Your task to perform on an android device: Open calendar and show me the first week of next month Image 0: 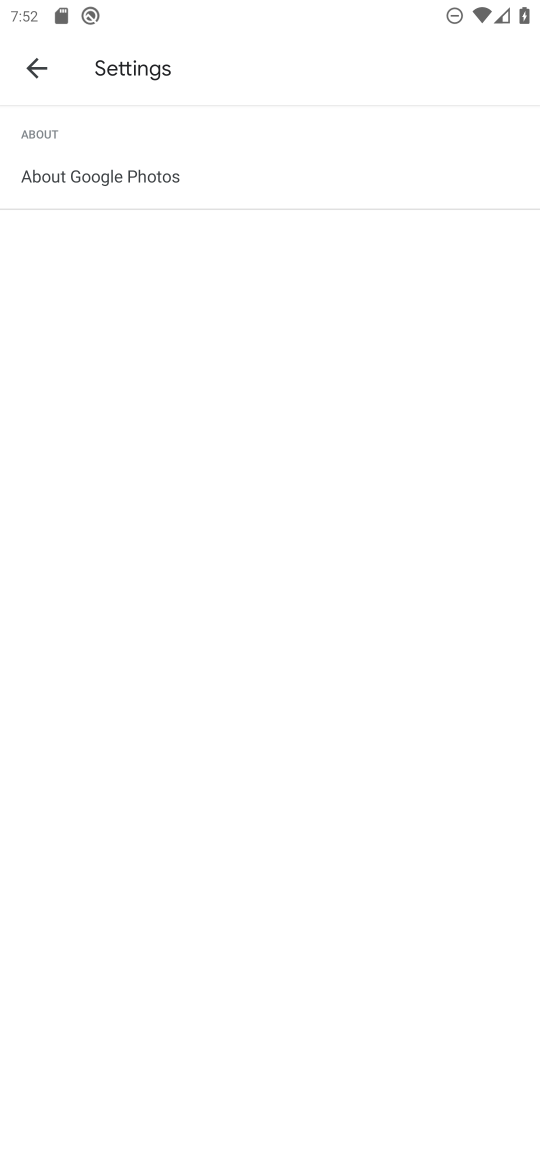
Step 0: press home button
Your task to perform on an android device: Open calendar and show me the first week of next month Image 1: 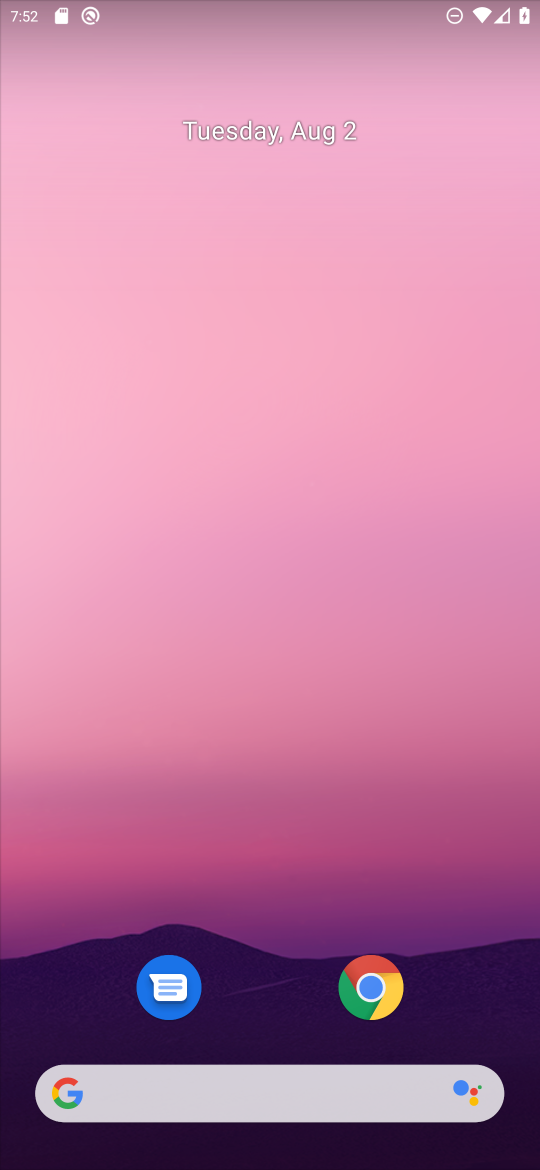
Step 1: drag from (505, 1038) to (402, 137)
Your task to perform on an android device: Open calendar and show me the first week of next month Image 2: 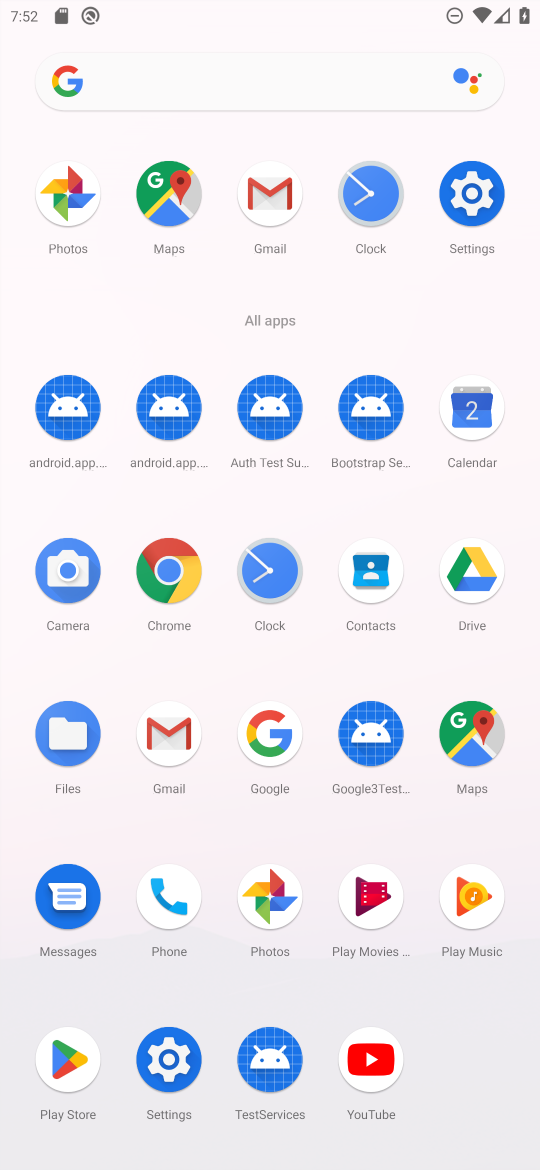
Step 2: click (473, 414)
Your task to perform on an android device: Open calendar and show me the first week of next month Image 3: 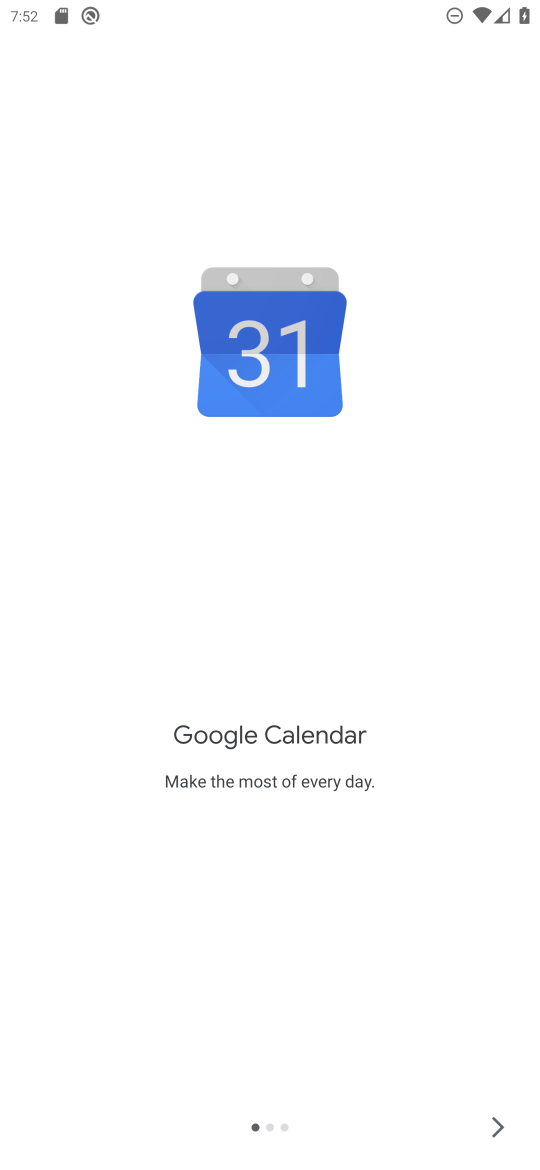
Step 3: click (486, 1131)
Your task to perform on an android device: Open calendar and show me the first week of next month Image 4: 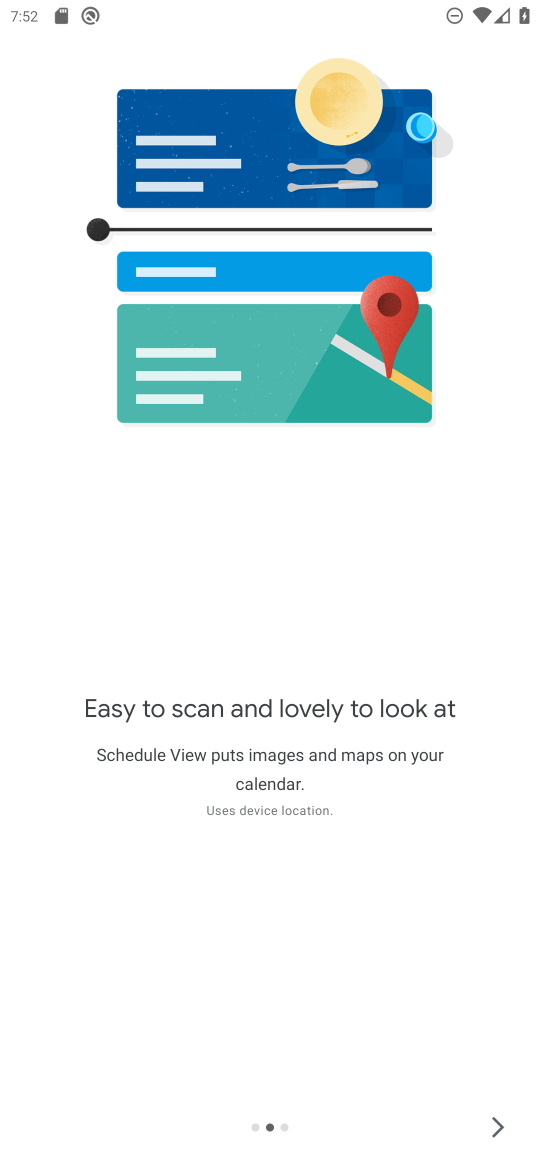
Step 4: click (494, 1127)
Your task to perform on an android device: Open calendar and show me the first week of next month Image 5: 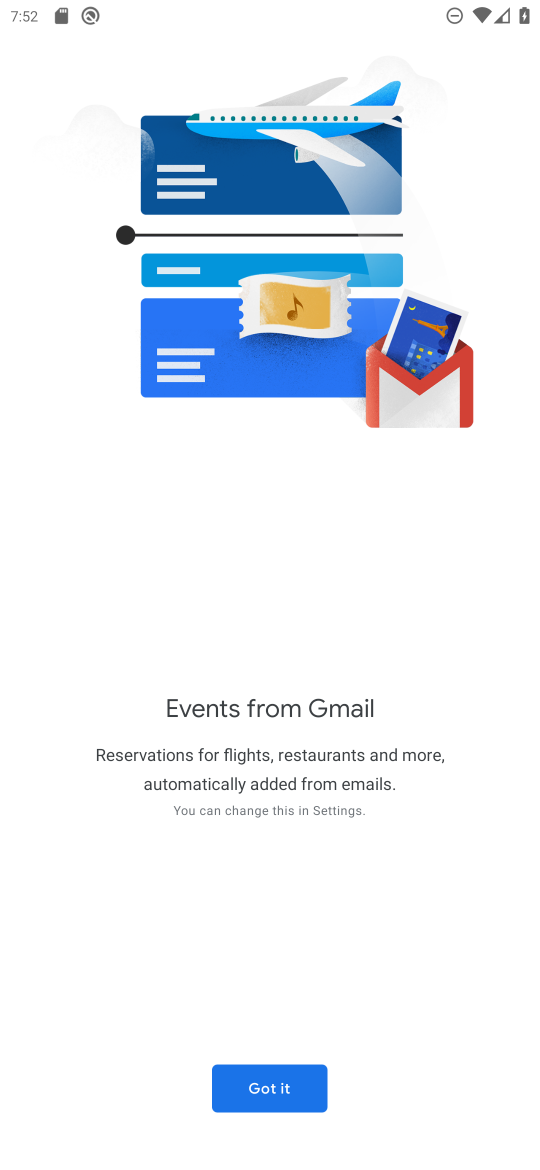
Step 5: click (271, 1089)
Your task to perform on an android device: Open calendar and show me the first week of next month Image 6: 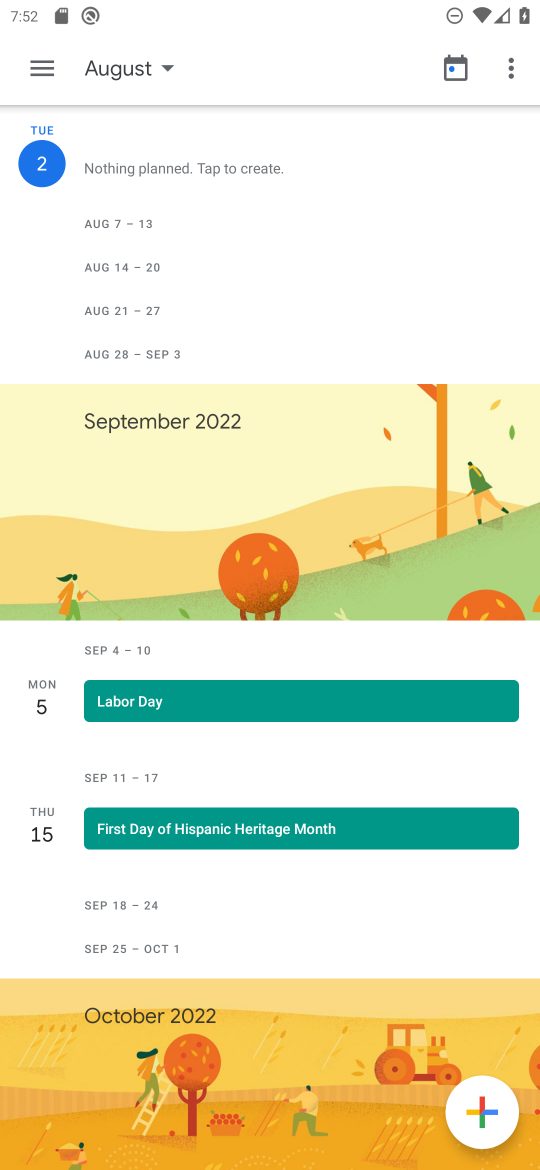
Step 6: click (45, 61)
Your task to perform on an android device: Open calendar and show me the first week of next month Image 7: 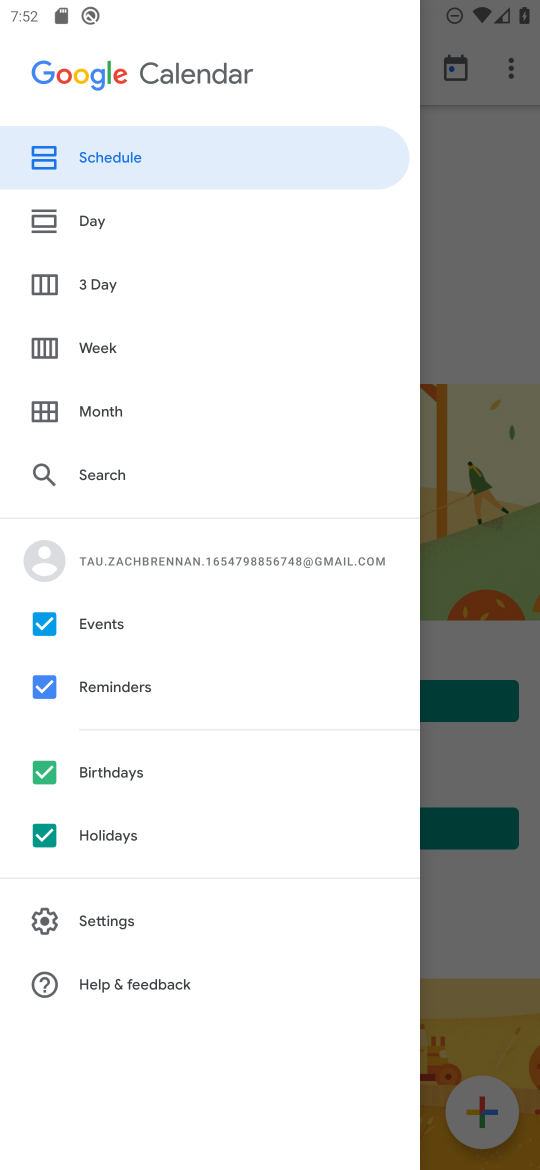
Step 7: click (102, 341)
Your task to perform on an android device: Open calendar and show me the first week of next month Image 8: 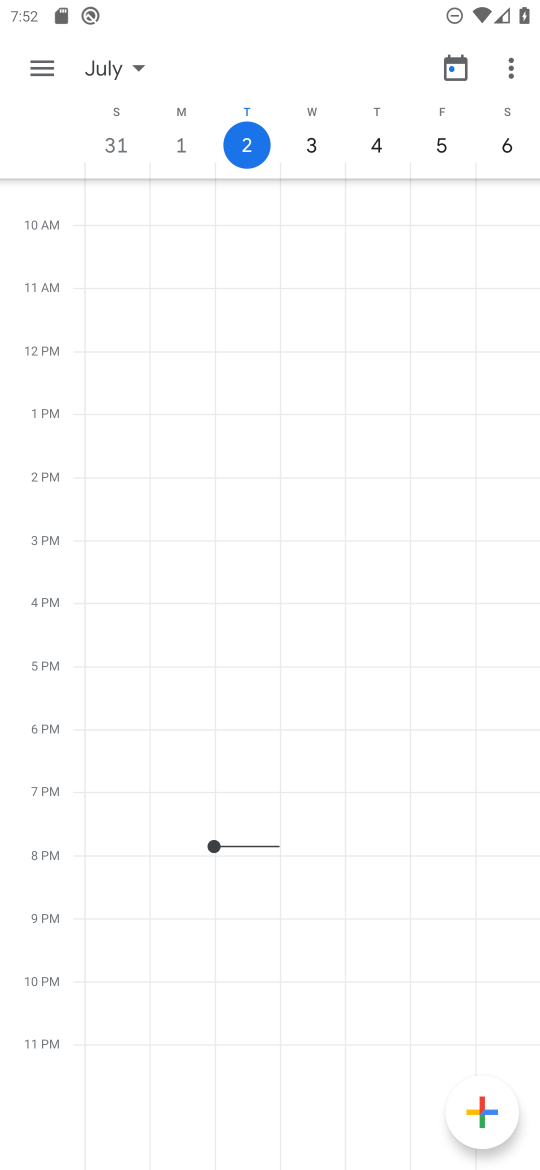
Step 8: click (137, 70)
Your task to perform on an android device: Open calendar and show me the first week of next month Image 9: 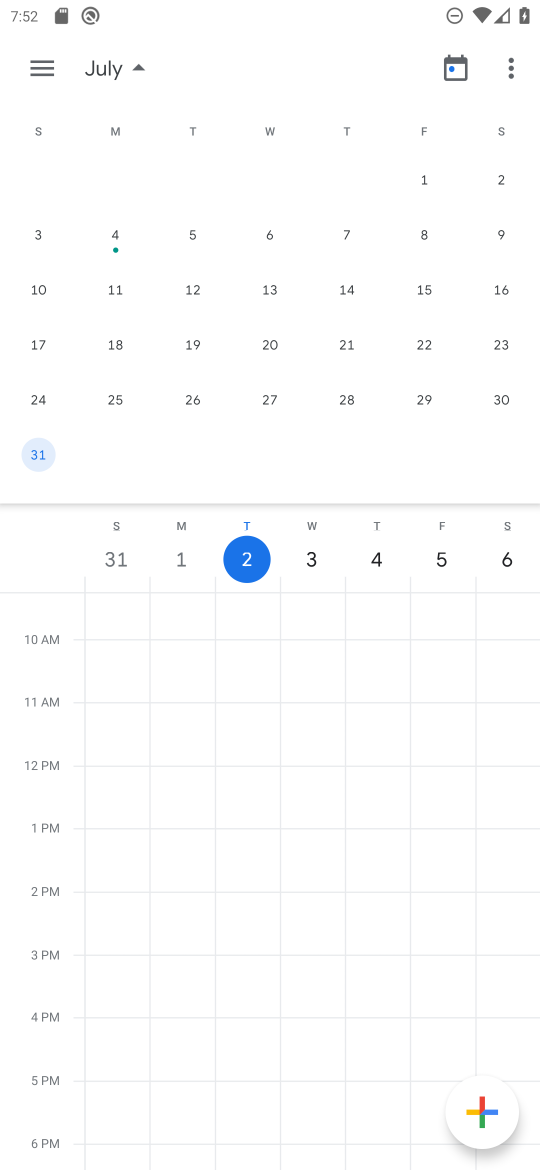
Step 9: drag from (505, 350) to (13, 319)
Your task to perform on an android device: Open calendar and show me the first week of next month Image 10: 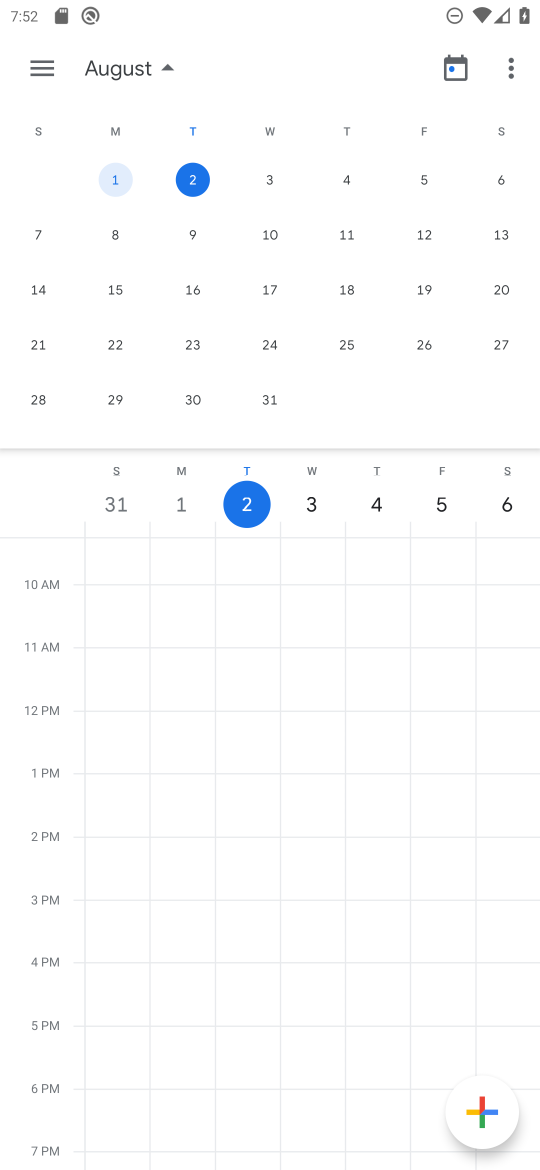
Step 10: click (39, 235)
Your task to perform on an android device: Open calendar and show me the first week of next month Image 11: 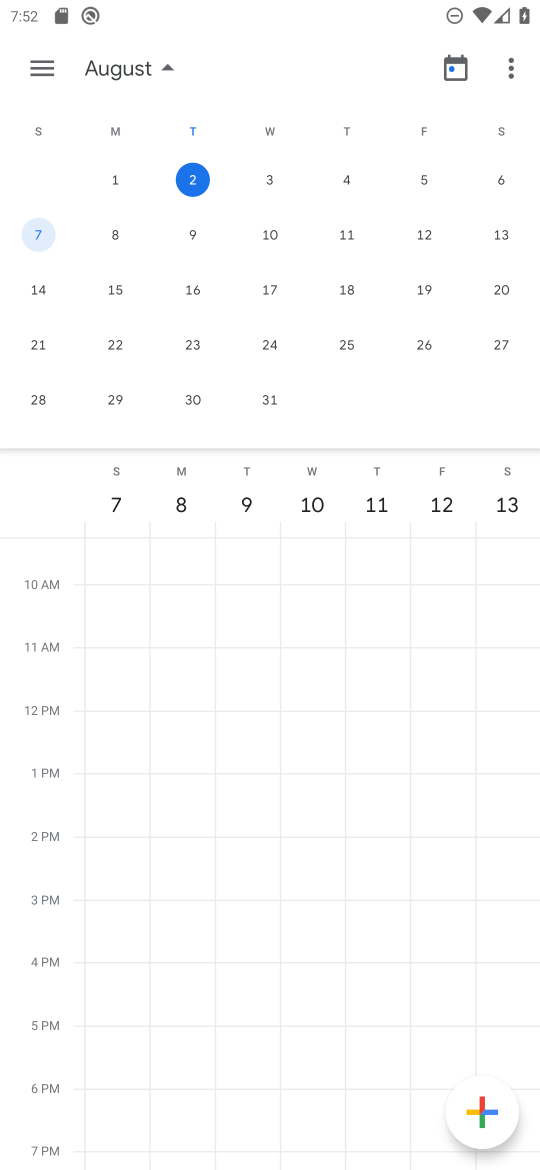
Step 11: task complete